Your task to perform on an android device: turn smart compose on in the gmail app Image 0: 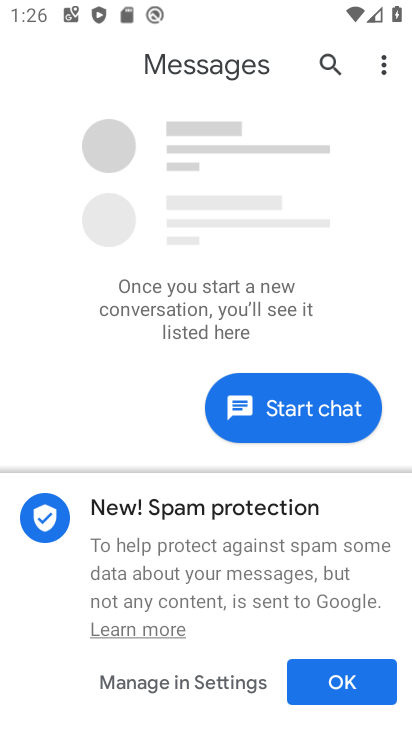
Step 0: press back button
Your task to perform on an android device: turn smart compose on in the gmail app Image 1: 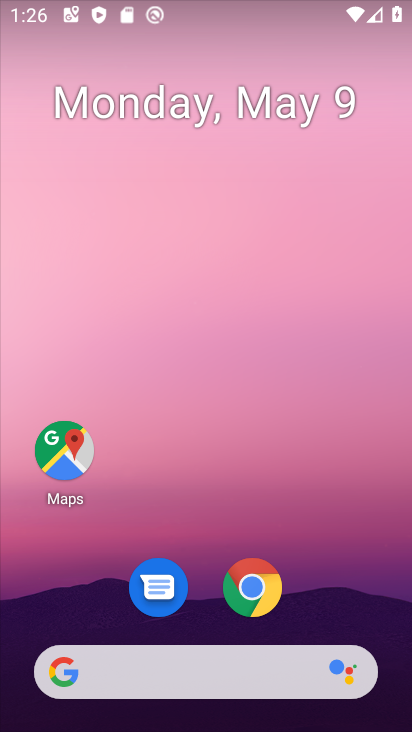
Step 1: drag from (113, 633) to (226, 163)
Your task to perform on an android device: turn smart compose on in the gmail app Image 2: 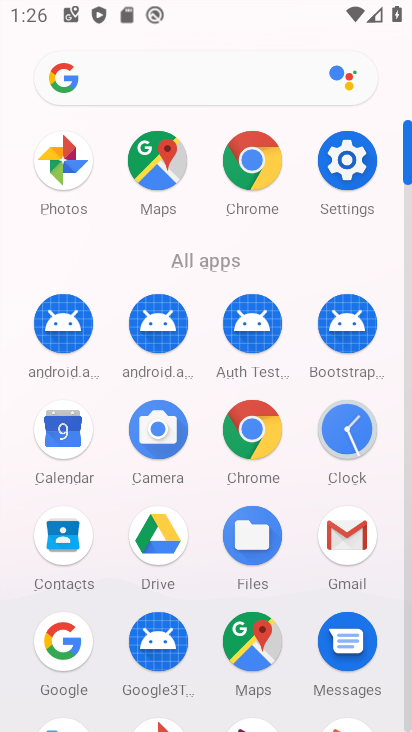
Step 2: click (332, 557)
Your task to perform on an android device: turn smart compose on in the gmail app Image 3: 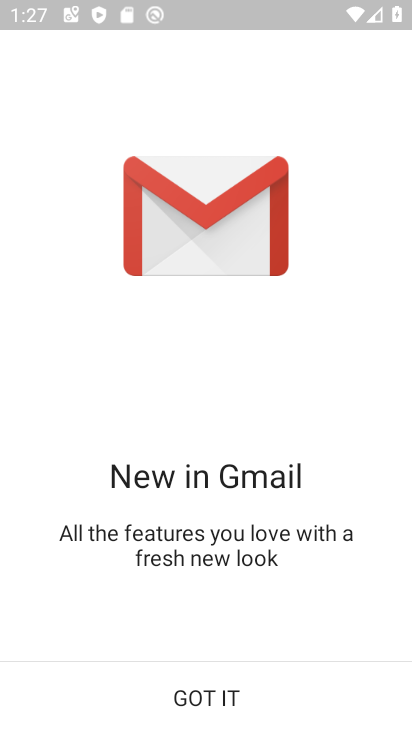
Step 3: click (196, 685)
Your task to perform on an android device: turn smart compose on in the gmail app Image 4: 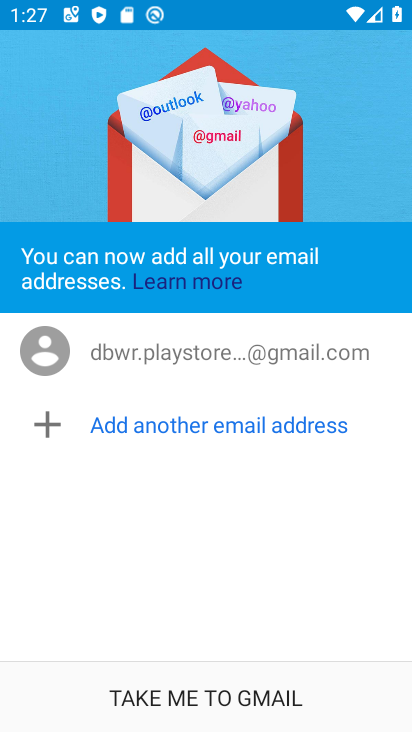
Step 4: click (196, 685)
Your task to perform on an android device: turn smart compose on in the gmail app Image 5: 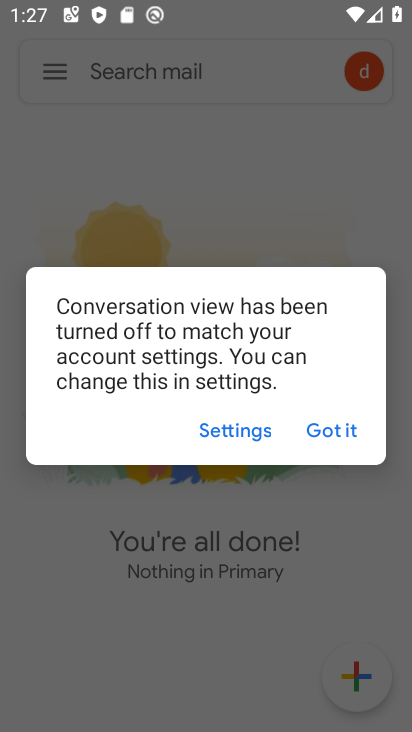
Step 5: click (318, 432)
Your task to perform on an android device: turn smart compose on in the gmail app Image 6: 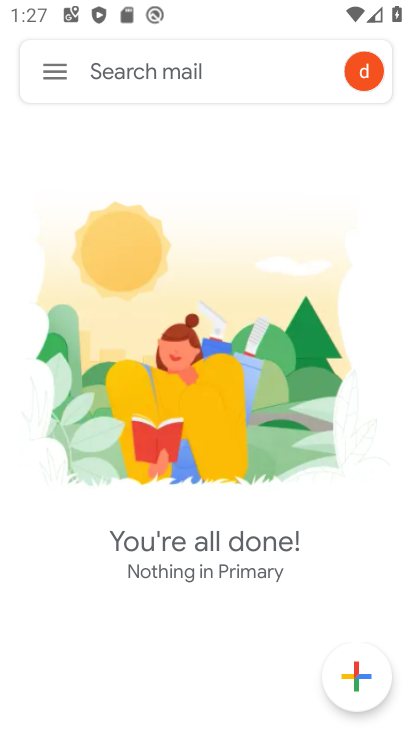
Step 6: click (61, 72)
Your task to perform on an android device: turn smart compose on in the gmail app Image 7: 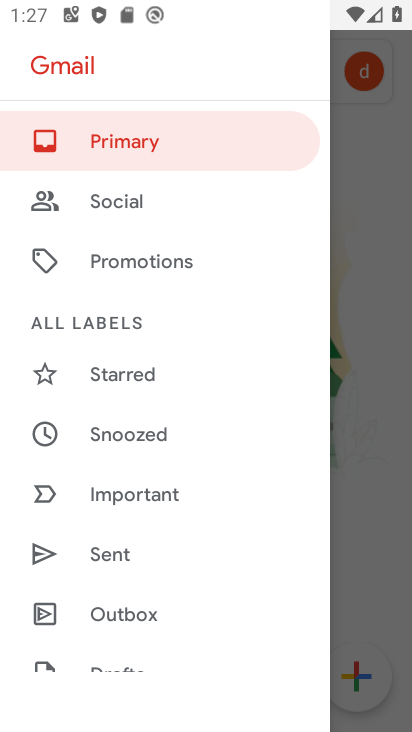
Step 7: drag from (122, 648) to (181, 384)
Your task to perform on an android device: turn smart compose on in the gmail app Image 8: 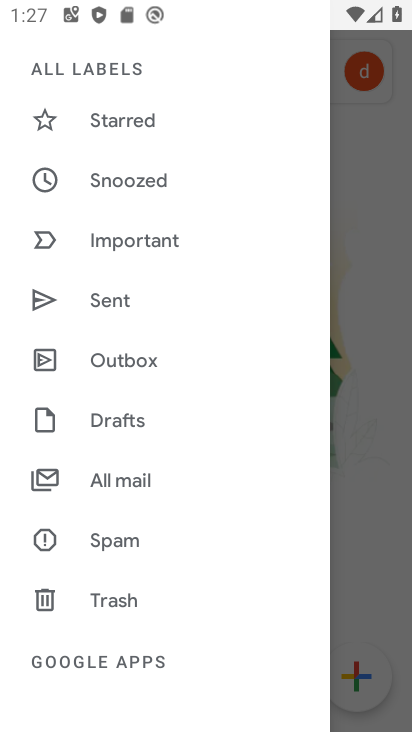
Step 8: drag from (149, 652) to (161, 486)
Your task to perform on an android device: turn smart compose on in the gmail app Image 9: 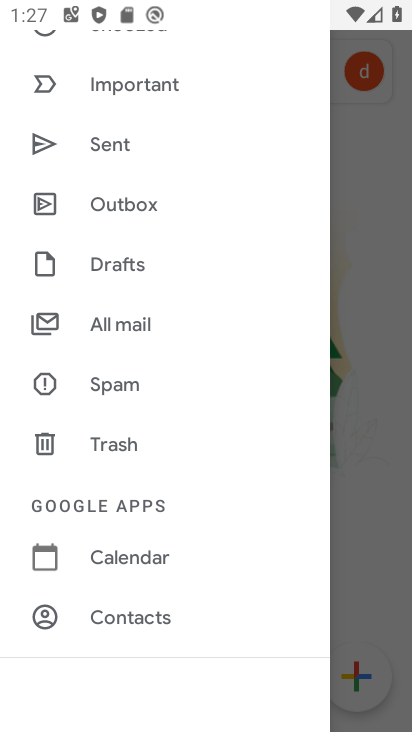
Step 9: click (182, 600)
Your task to perform on an android device: turn smart compose on in the gmail app Image 10: 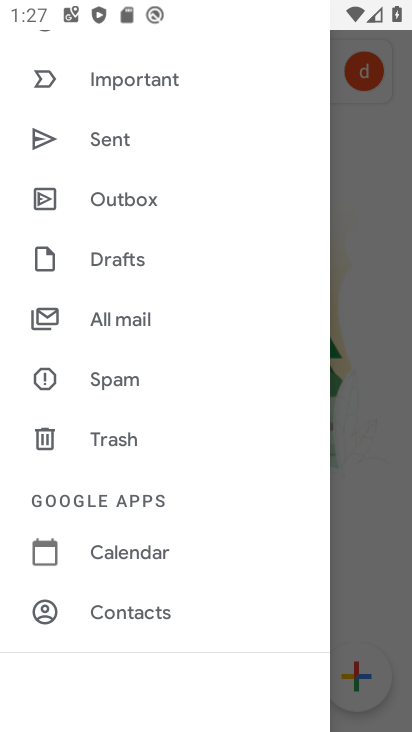
Step 10: drag from (204, 633) to (246, 489)
Your task to perform on an android device: turn smart compose on in the gmail app Image 11: 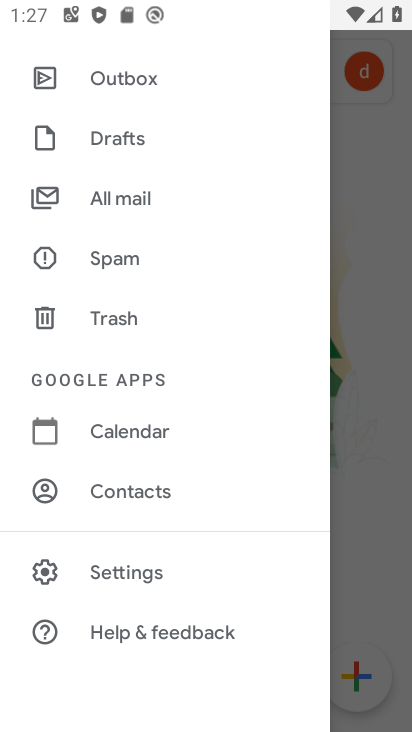
Step 11: click (194, 574)
Your task to perform on an android device: turn smart compose on in the gmail app Image 12: 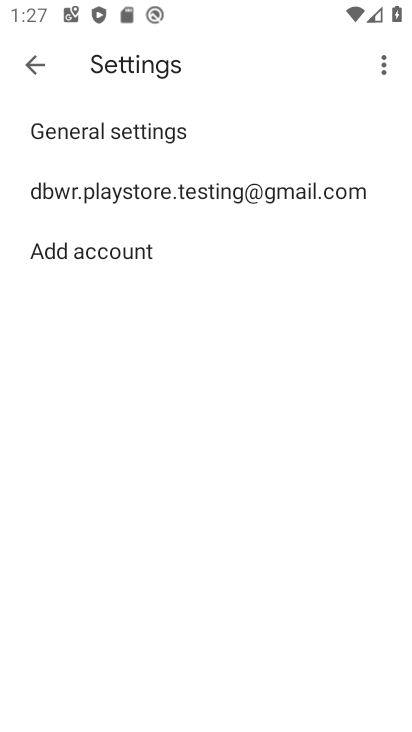
Step 12: click (322, 200)
Your task to perform on an android device: turn smart compose on in the gmail app Image 13: 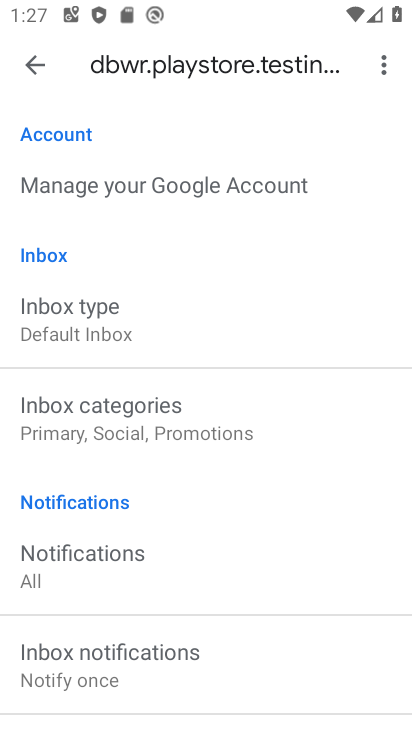
Step 13: task complete